Your task to perform on an android device: Search for Italian restaurants on Maps Image 0: 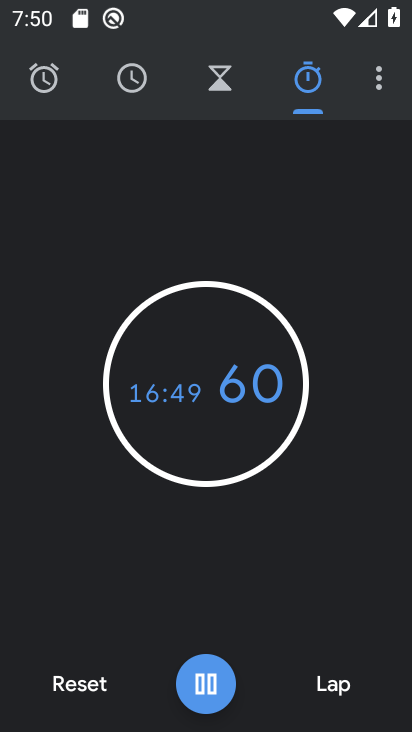
Step 0: press home button
Your task to perform on an android device: Search for Italian restaurants on Maps Image 1: 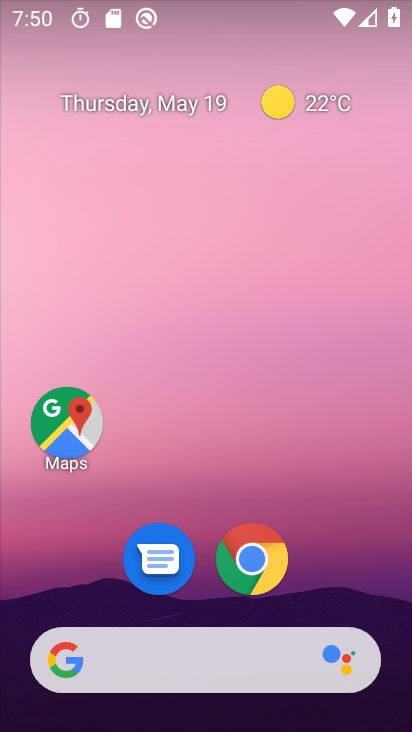
Step 1: drag from (339, 587) to (269, 96)
Your task to perform on an android device: Search for Italian restaurants on Maps Image 2: 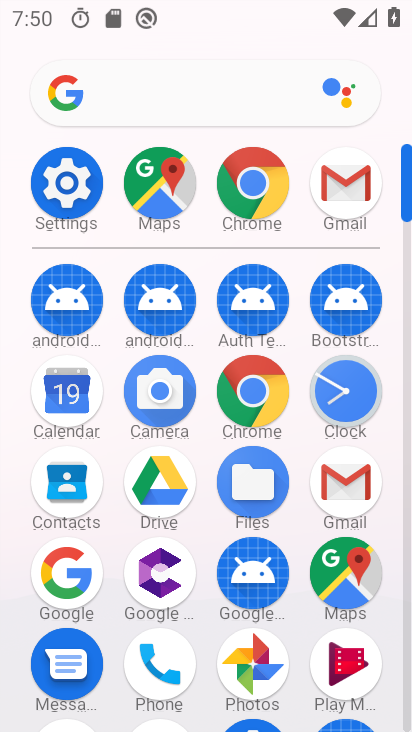
Step 2: click (336, 562)
Your task to perform on an android device: Search for Italian restaurants on Maps Image 3: 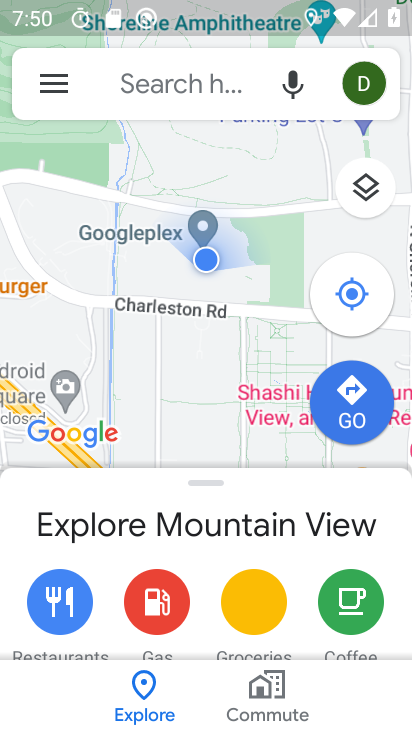
Step 3: click (148, 91)
Your task to perform on an android device: Search for Italian restaurants on Maps Image 4: 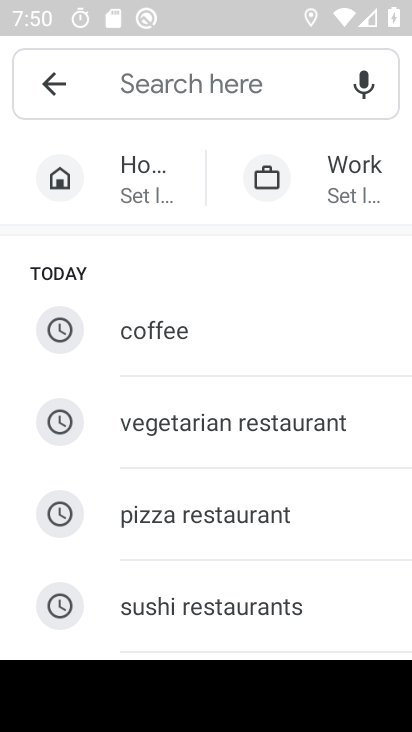
Step 4: type "italian restaurant"
Your task to perform on an android device: Search for Italian restaurants on Maps Image 5: 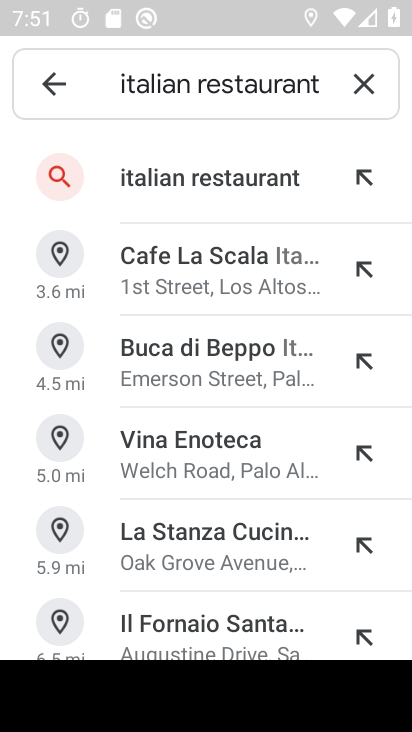
Step 5: click (231, 190)
Your task to perform on an android device: Search for Italian restaurants on Maps Image 6: 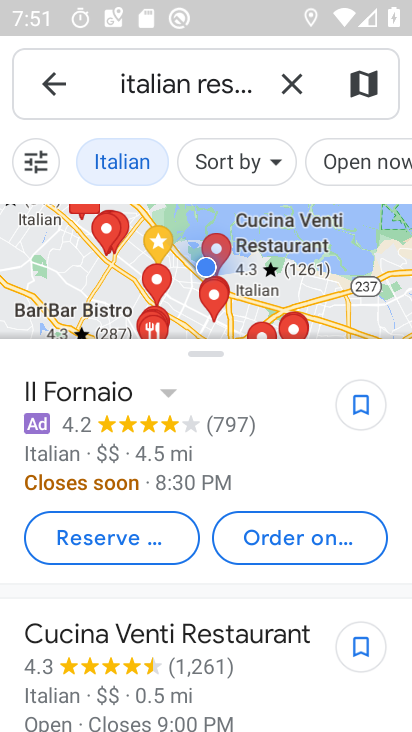
Step 6: task complete